Your task to perform on an android device: Search for Italian restaurants on Maps Image 0: 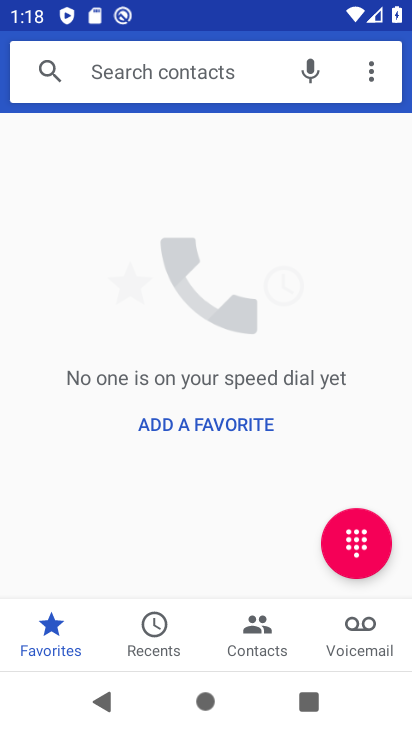
Step 0: press home button
Your task to perform on an android device: Search for Italian restaurants on Maps Image 1: 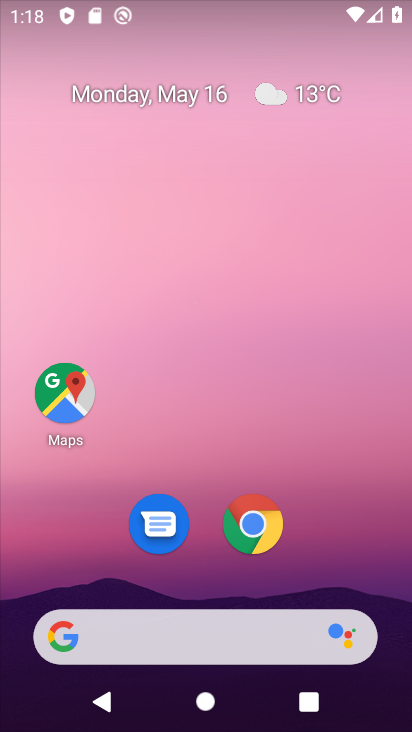
Step 1: click (69, 406)
Your task to perform on an android device: Search for Italian restaurants on Maps Image 2: 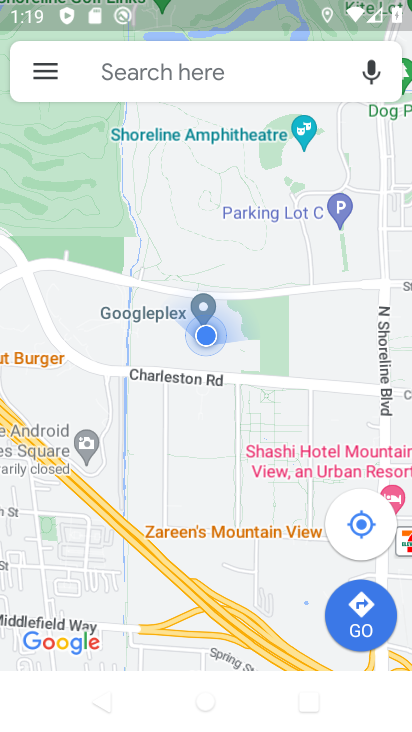
Step 2: click (207, 74)
Your task to perform on an android device: Search for Italian restaurants on Maps Image 3: 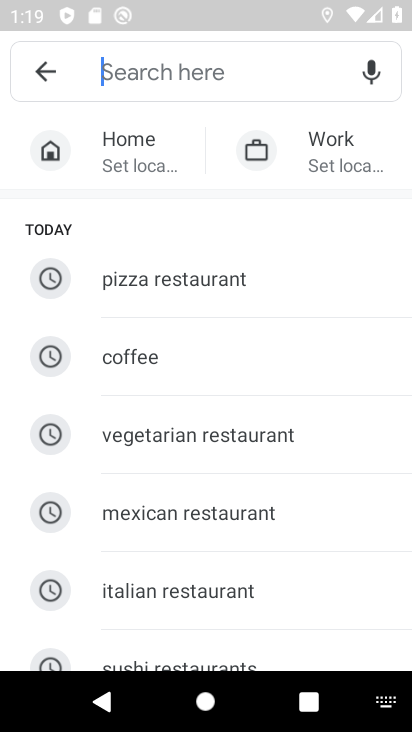
Step 3: click (230, 592)
Your task to perform on an android device: Search for Italian restaurants on Maps Image 4: 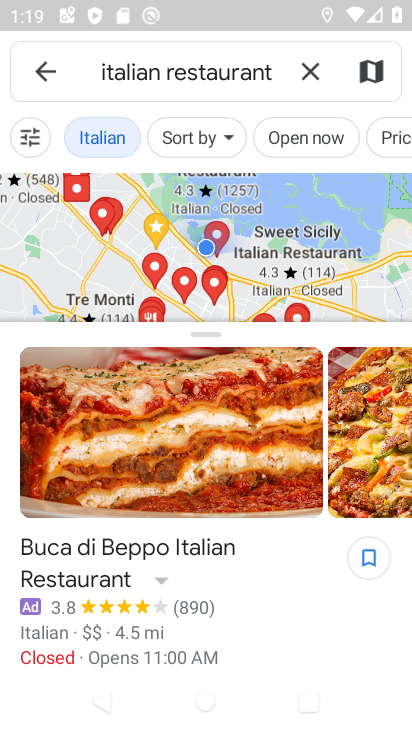
Step 4: task complete